Your task to perform on an android device: change the upload size in google photos Image 0: 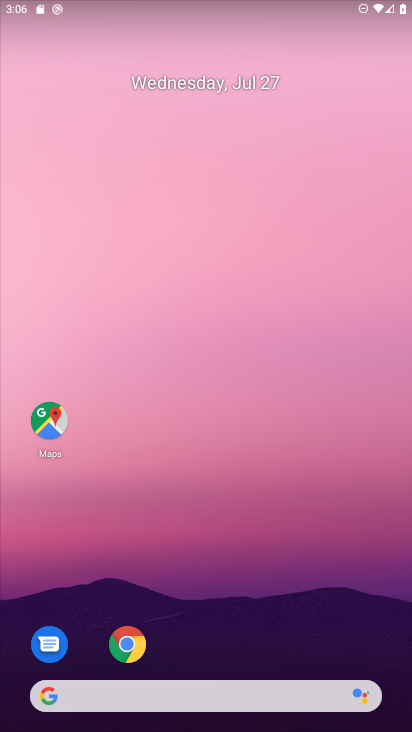
Step 0: drag from (183, 603) to (286, 13)
Your task to perform on an android device: change the upload size in google photos Image 1: 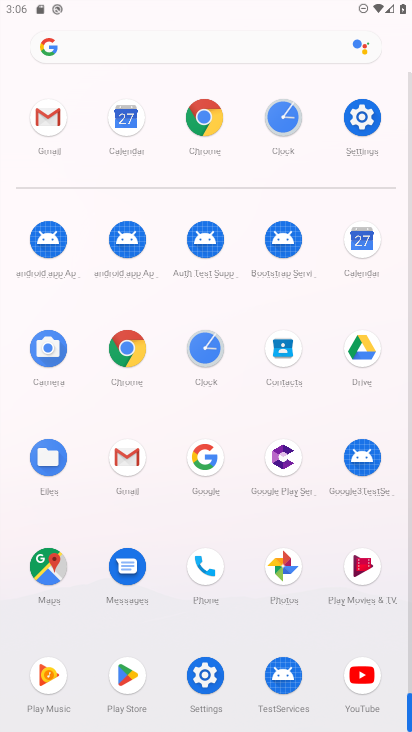
Step 1: click (283, 566)
Your task to perform on an android device: change the upload size in google photos Image 2: 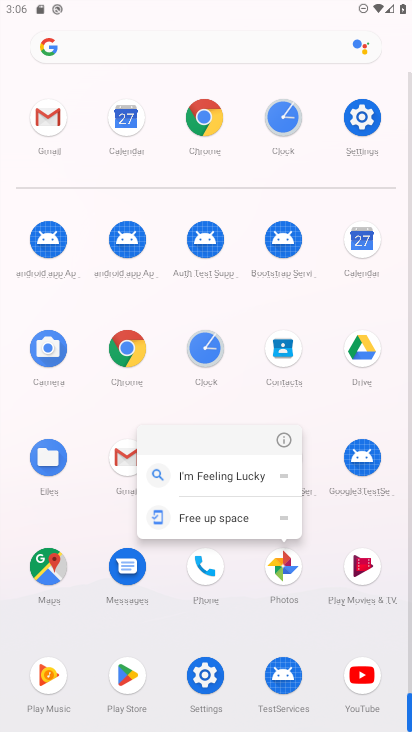
Step 2: click (284, 569)
Your task to perform on an android device: change the upload size in google photos Image 3: 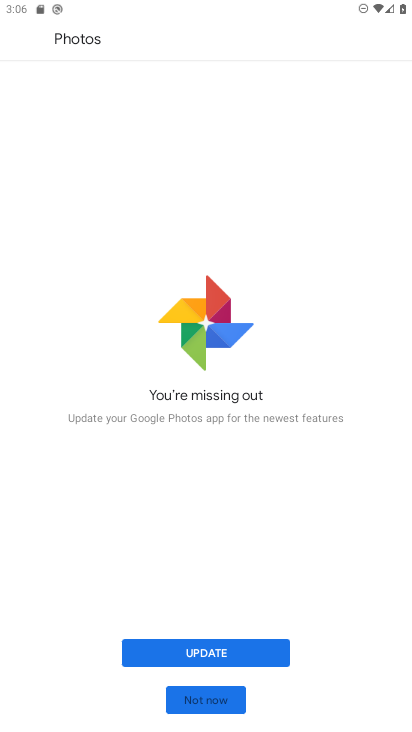
Step 3: click (229, 703)
Your task to perform on an android device: change the upload size in google photos Image 4: 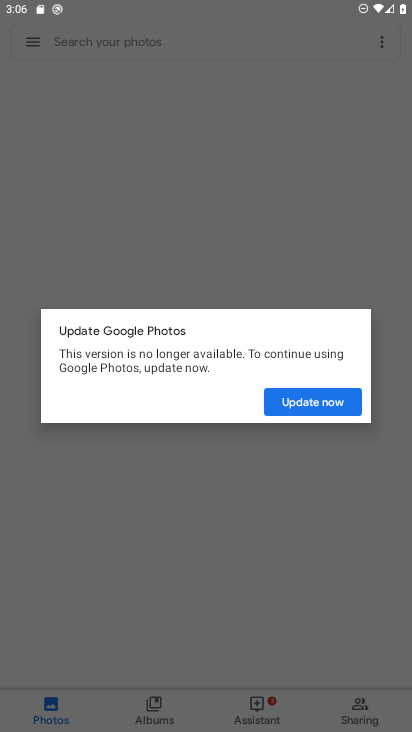
Step 4: click (299, 404)
Your task to perform on an android device: change the upload size in google photos Image 5: 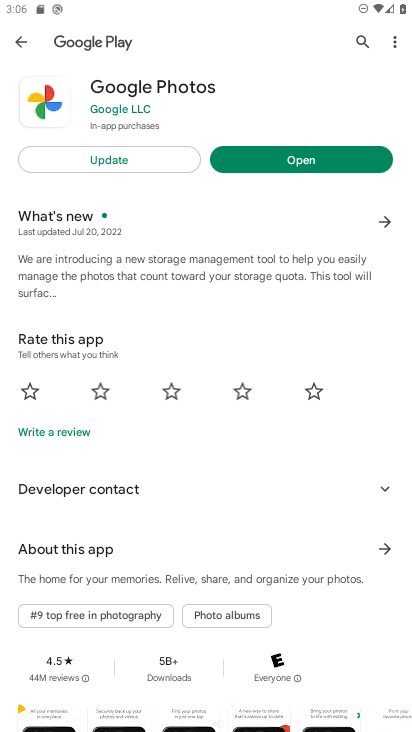
Step 5: click (276, 163)
Your task to perform on an android device: change the upload size in google photos Image 6: 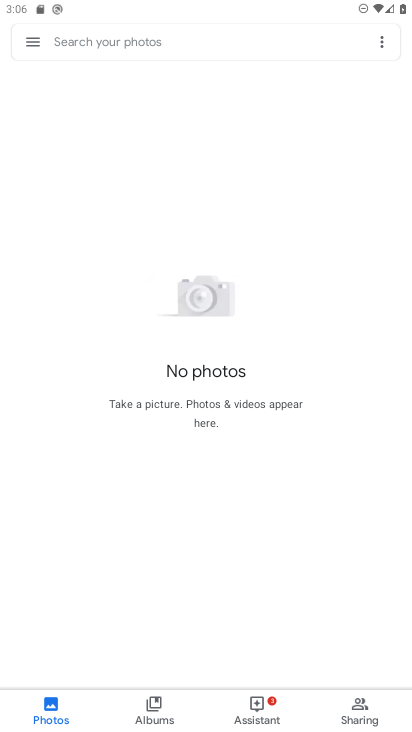
Step 6: click (28, 44)
Your task to perform on an android device: change the upload size in google photos Image 7: 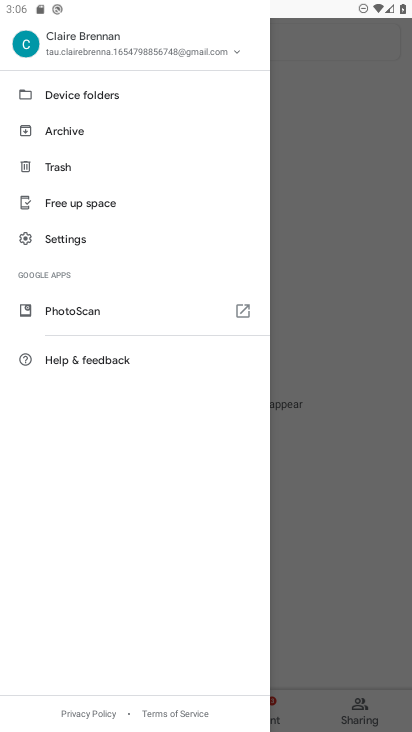
Step 7: click (81, 249)
Your task to perform on an android device: change the upload size in google photos Image 8: 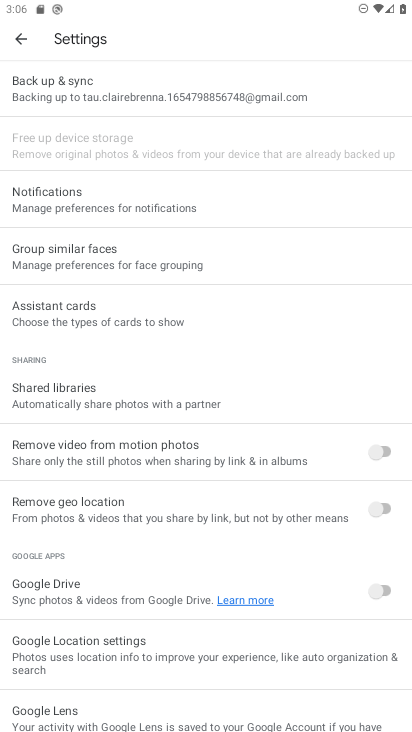
Step 8: click (111, 89)
Your task to perform on an android device: change the upload size in google photos Image 9: 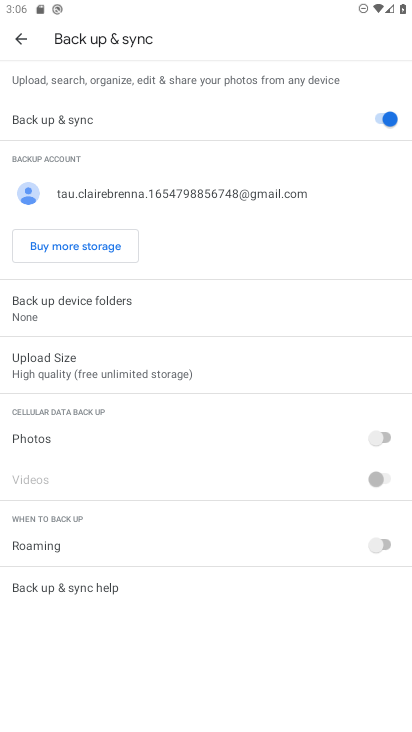
Step 9: click (89, 371)
Your task to perform on an android device: change the upload size in google photos Image 10: 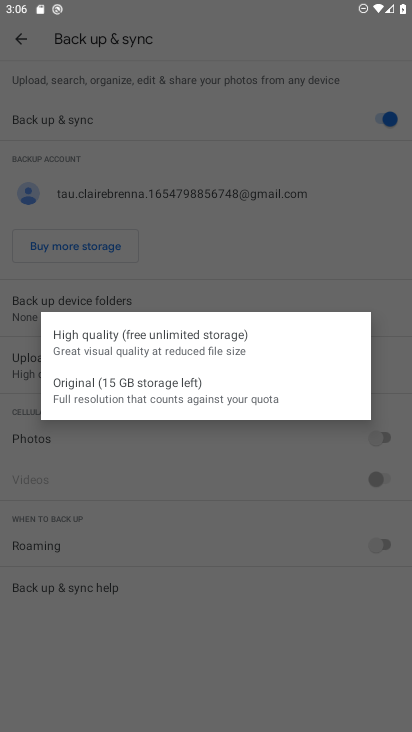
Step 10: click (97, 399)
Your task to perform on an android device: change the upload size in google photos Image 11: 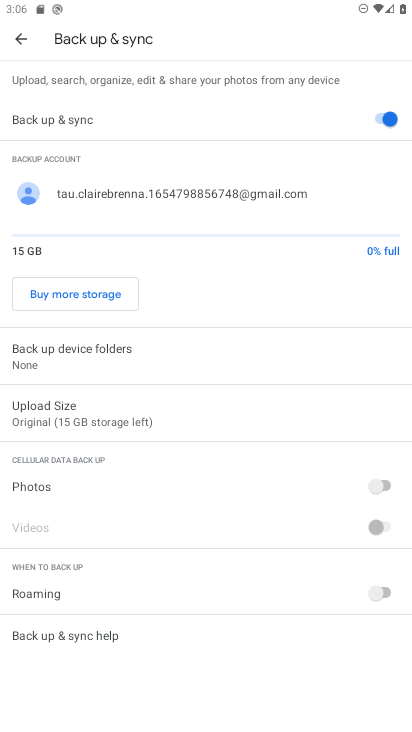
Step 11: task complete